Your task to perform on an android device: Search for seafood restaurants on Google Maps Image 0: 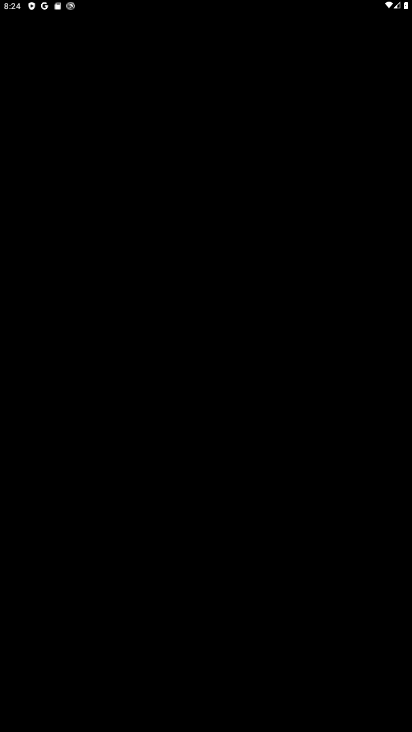
Step 0: press home button
Your task to perform on an android device: Search for seafood restaurants on Google Maps Image 1: 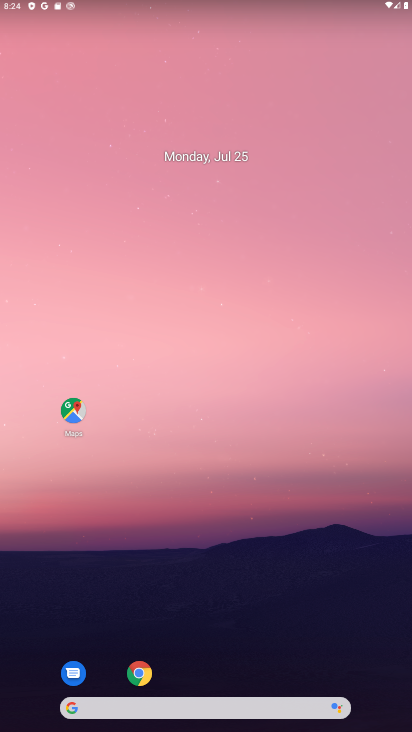
Step 1: click (96, 415)
Your task to perform on an android device: Search for seafood restaurants on Google Maps Image 2: 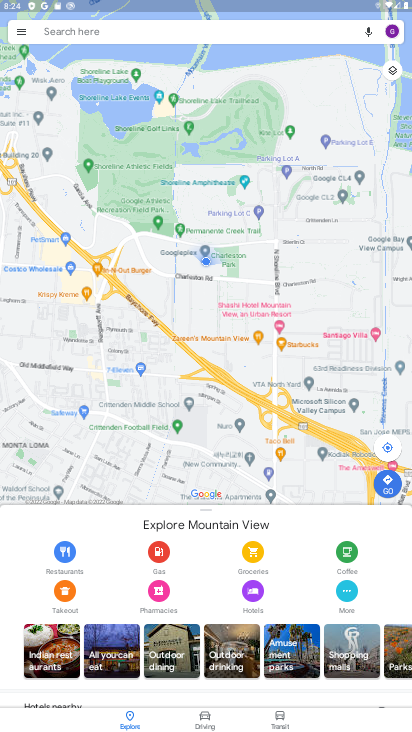
Step 2: click (138, 33)
Your task to perform on an android device: Search for seafood restaurants on Google Maps Image 3: 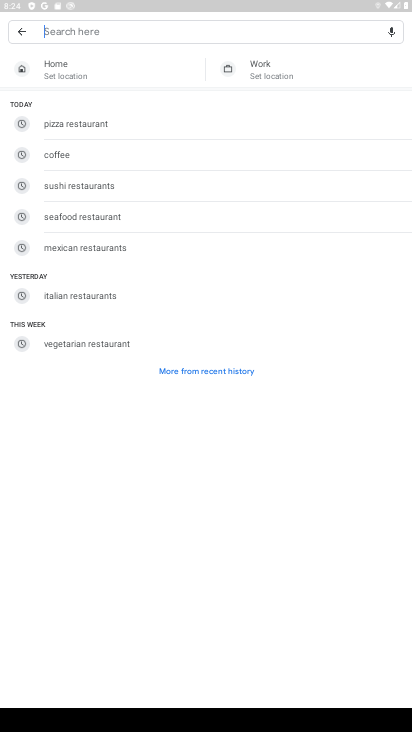
Step 3: click (90, 219)
Your task to perform on an android device: Search for seafood restaurants on Google Maps Image 4: 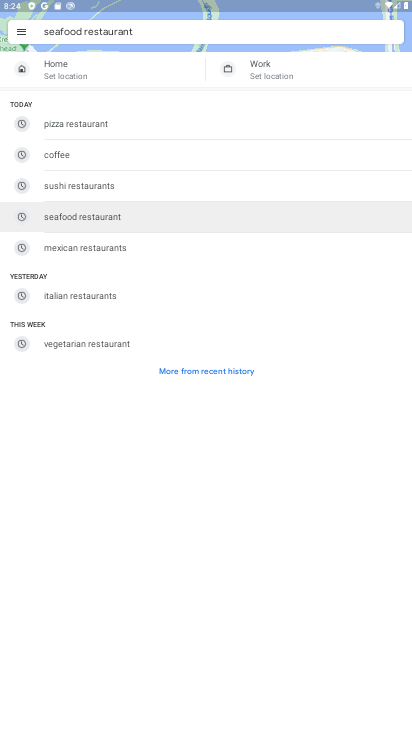
Step 4: task complete